Your task to perform on an android device: Open CNN.com Image 0: 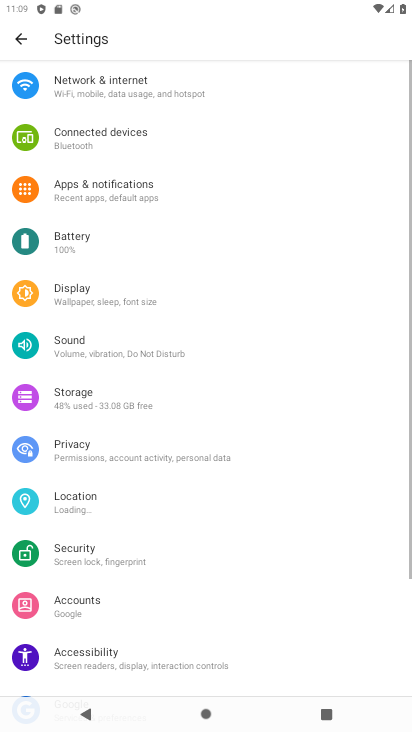
Step 0: press back button
Your task to perform on an android device: Open CNN.com Image 1: 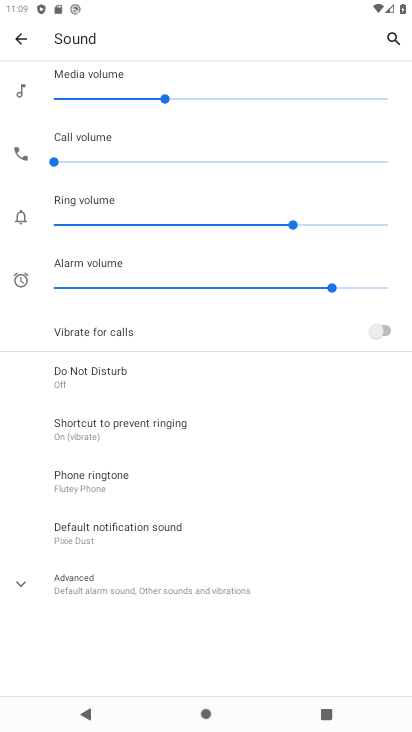
Step 1: press back button
Your task to perform on an android device: Open CNN.com Image 2: 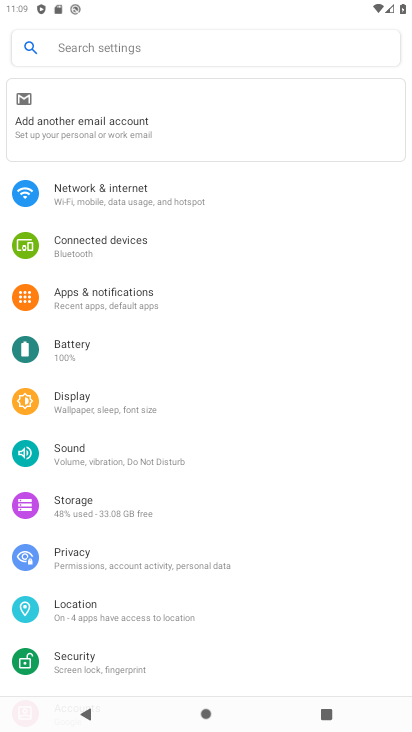
Step 2: press back button
Your task to perform on an android device: Open CNN.com Image 3: 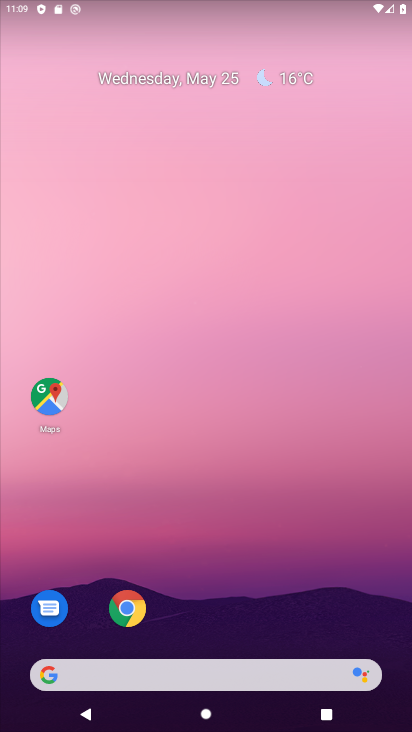
Step 3: click (134, 601)
Your task to perform on an android device: Open CNN.com Image 4: 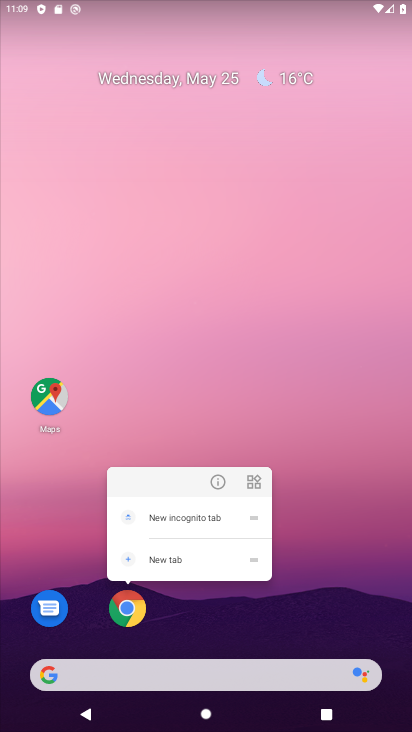
Step 4: click (127, 604)
Your task to perform on an android device: Open CNN.com Image 5: 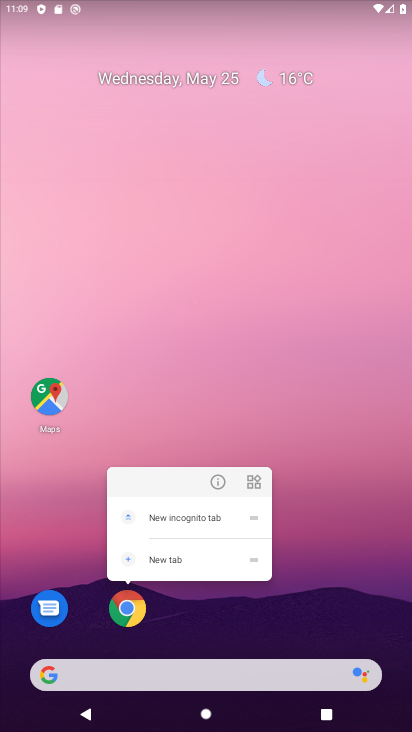
Step 5: click (127, 604)
Your task to perform on an android device: Open CNN.com Image 6: 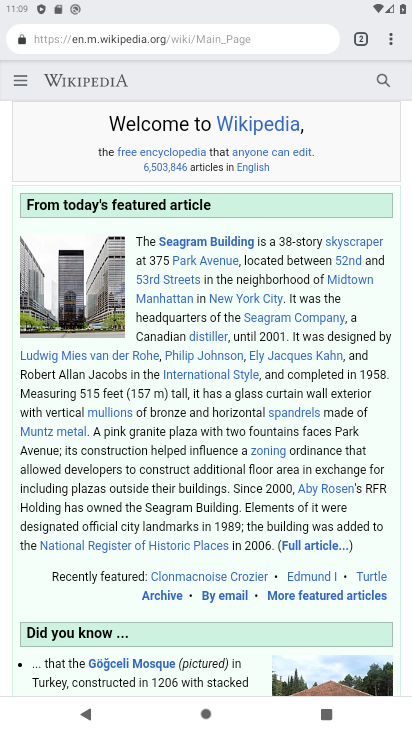
Step 6: click (361, 41)
Your task to perform on an android device: Open CNN.com Image 7: 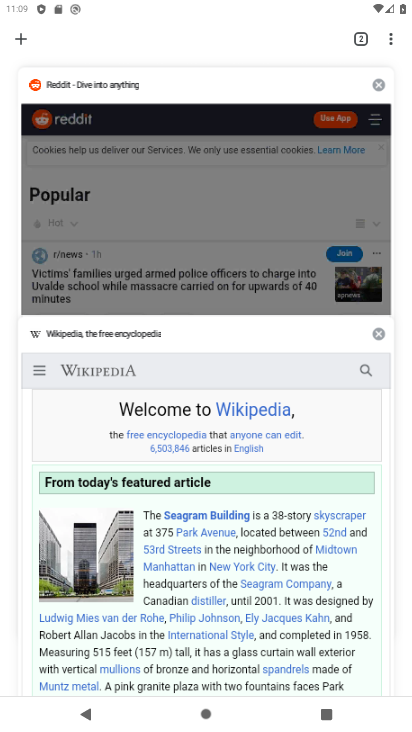
Step 7: click (13, 40)
Your task to perform on an android device: Open CNN.com Image 8: 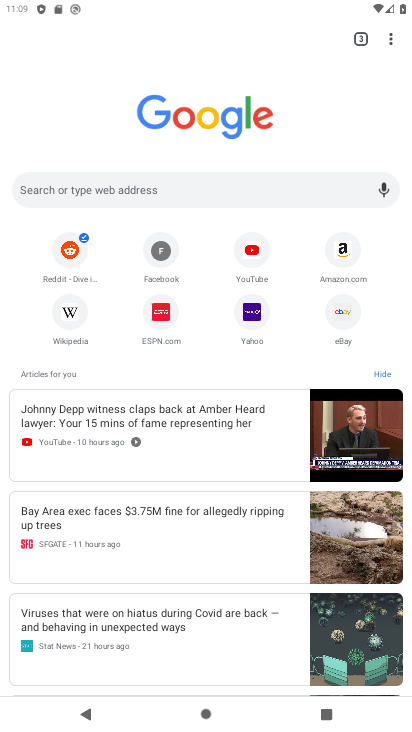
Step 8: click (86, 190)
Your task to perform on an android device: Open CNN.com Image 9: 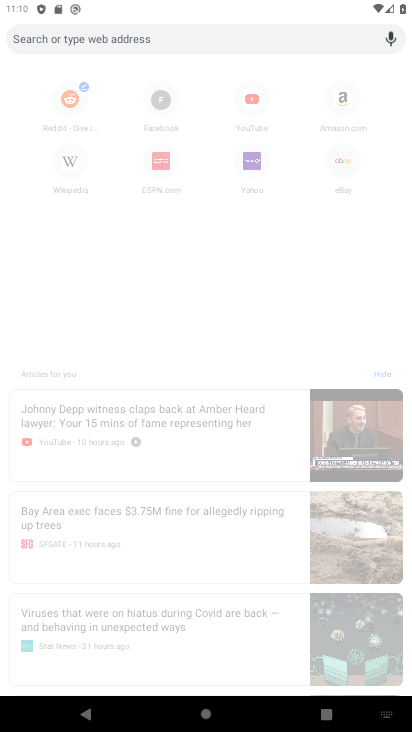
Step 9: type "cnn.com"
Your task to perform on an android device: Open CNN.com Image 10: 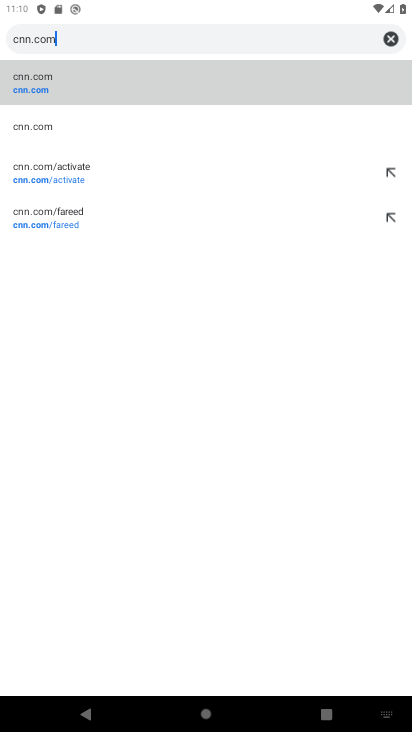
Step 10: click (111, 86)
Your task to perform on an android device: Open CNN.com Image 11: 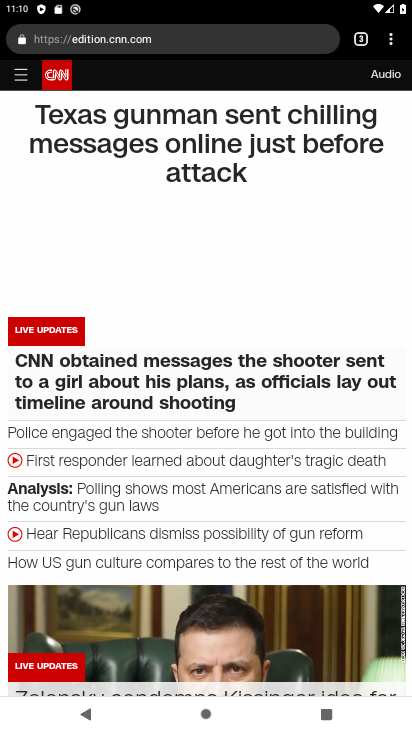
Step 11: task complete